Your task to perform on an android device: turn on javascript in the chrome app Image 0: 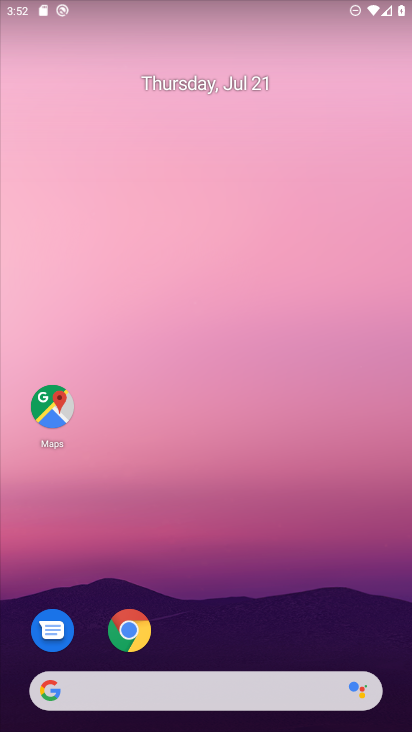
Step 0: drag from (210, 653) to (177, 50)
Your task to perform on an android device: turn on javascript in the chrome app Image 1: 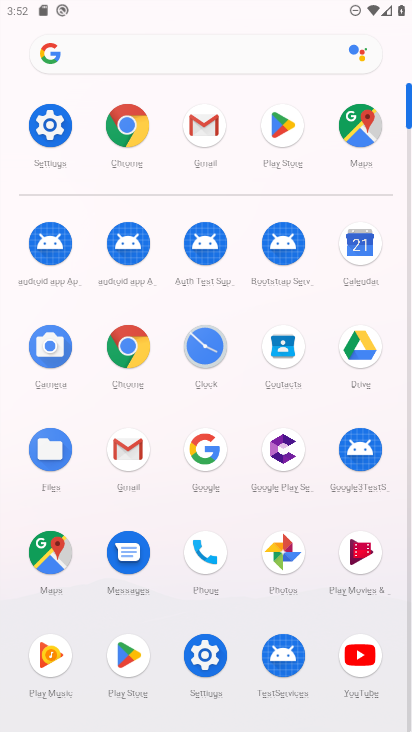
Step 1: click (131, 352)
Your task to perform on an android device: turn on javascript in the chrome app Image 2: 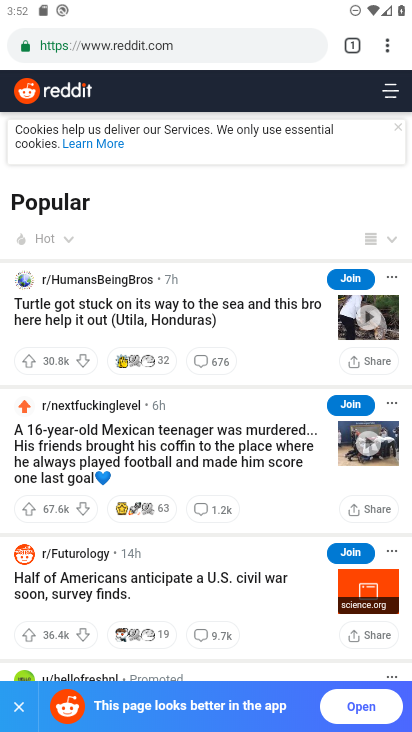
Step 2: click (385, 44)
Your task to perform on an android device: turn on javascript in the chrome app Image 3: 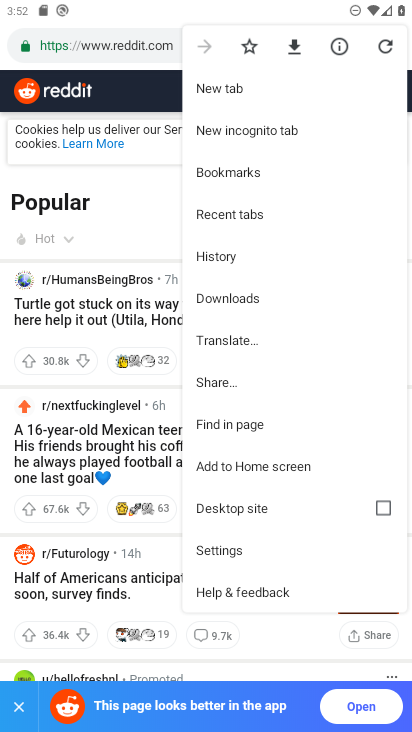
Step 3: click (242, 558)
Your task to perform on an android device: turn on javascript in the chrome app Image 4: 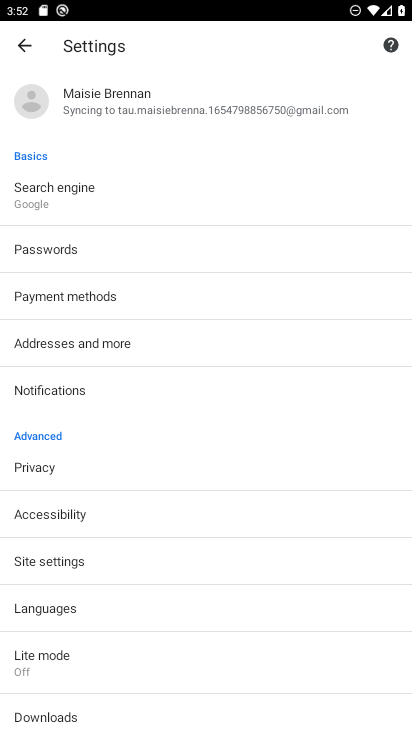
Step 4: click (39, 553)
Your task to perform on an android device: turn on javascript in the chrome app Image 5: 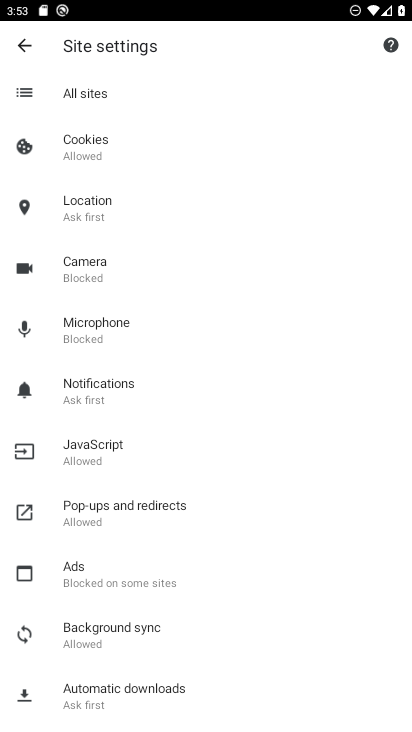
Step 5: drag from (180, 685) to (133, 150)
Your task to perform on an android device: turn on javascript in the chrome app Image 6: 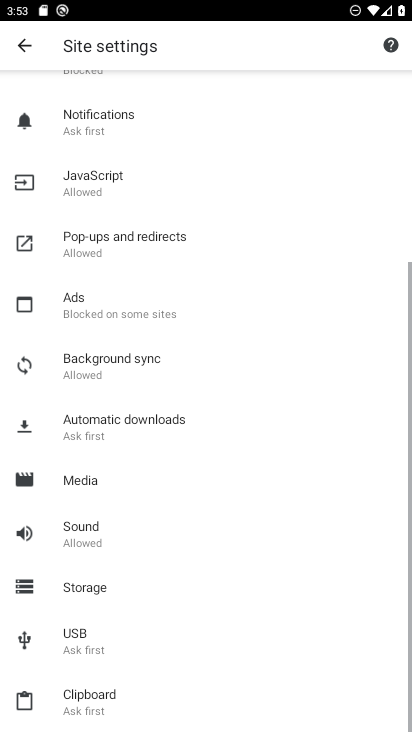
Step 6: drag from (116, 602) to (116, 36)
Your task to perform on an android device: turn on javascript in the chrome app Image 7: 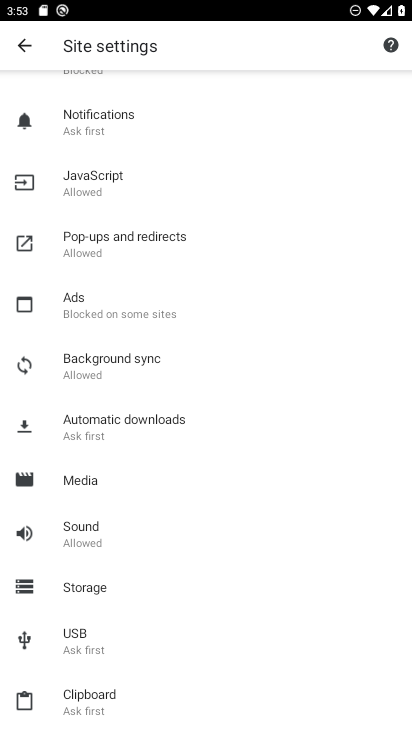
Step 7: click (85, 188)
Your task to perform on an android device: turn on javascript in the chrome app Image 8: 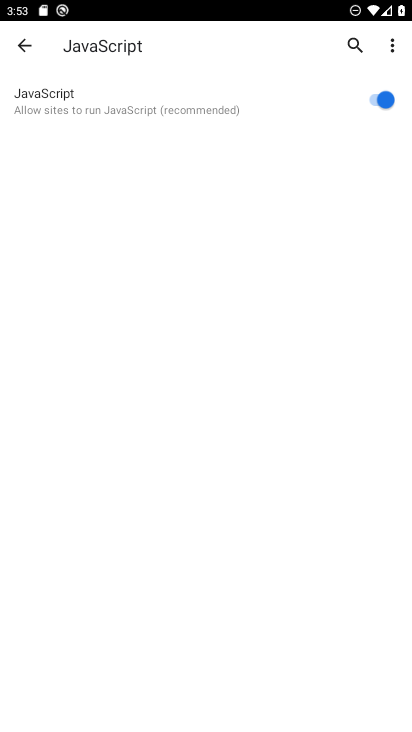
Step 8: task complete